Your task to perform on an android device: star an email in the gmail app Image 0: 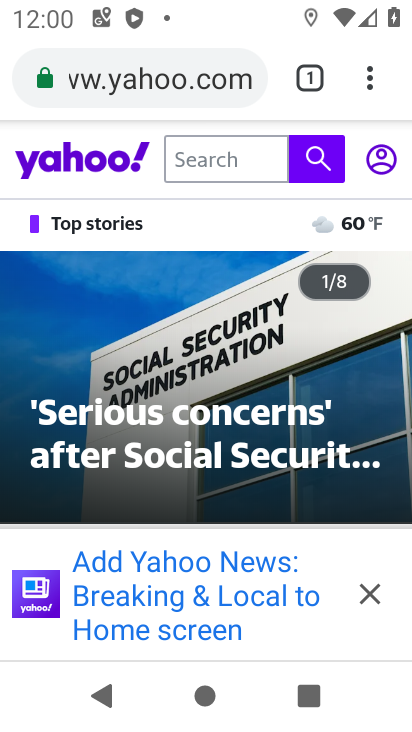
Step 0: press home button
Your task to perform on an android device: star an email in the gmail app Image 1: 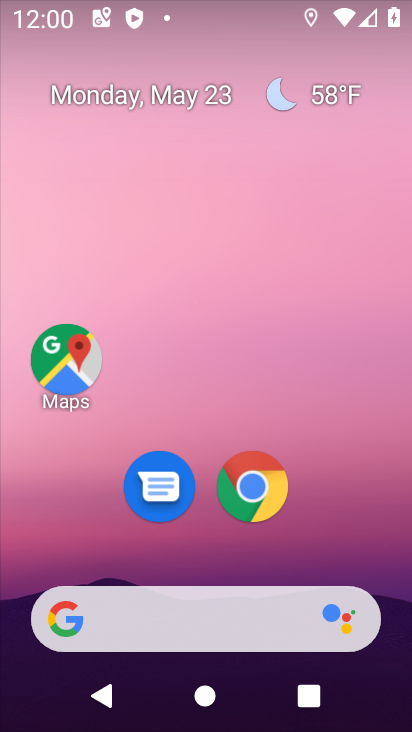
Step 1: drag from (402, 610) to (401, 89)
Your task to perform on an android device: star an email in the gmail app Image 2: 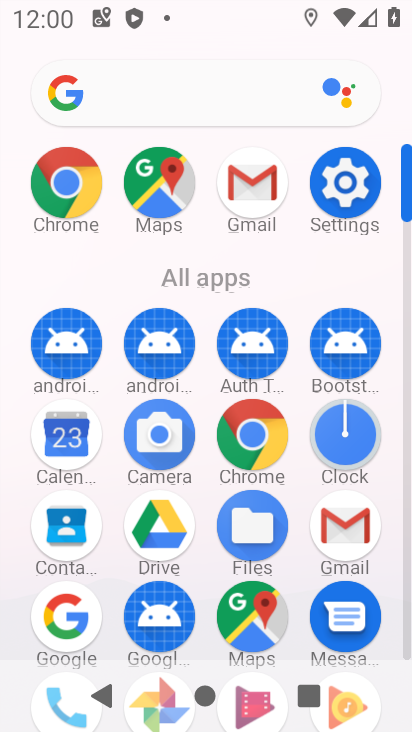
Step 2: click (343, 526)
Your task to perform on an android device: star an email in the gmail app Image 3: 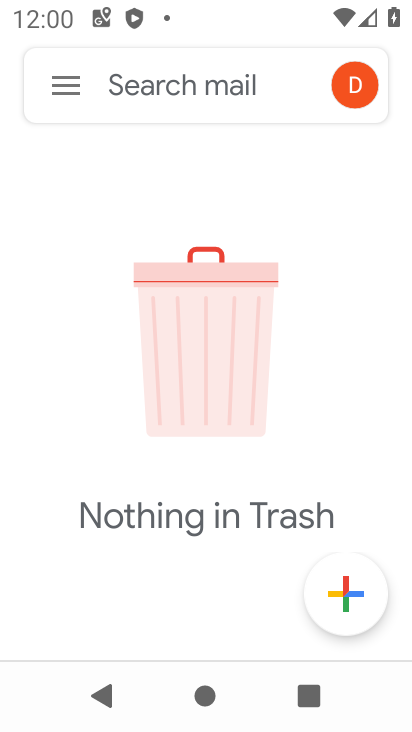
Step 3: click (71, 83)
Your task to perform on an android device: star an email in the gmail app Image 4: 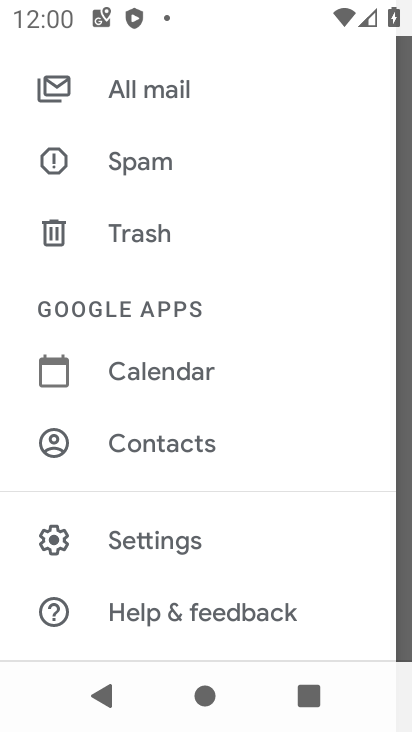
Step 4: click (155, 88)
Your task to perform on an android device: star an email in the gmail app Image 5: 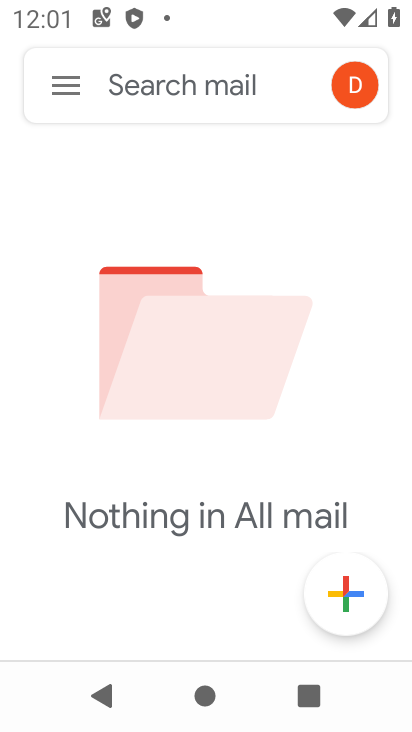
Step 5: task complete